Your task to perform on an android device: Go to battery settings Image 0: 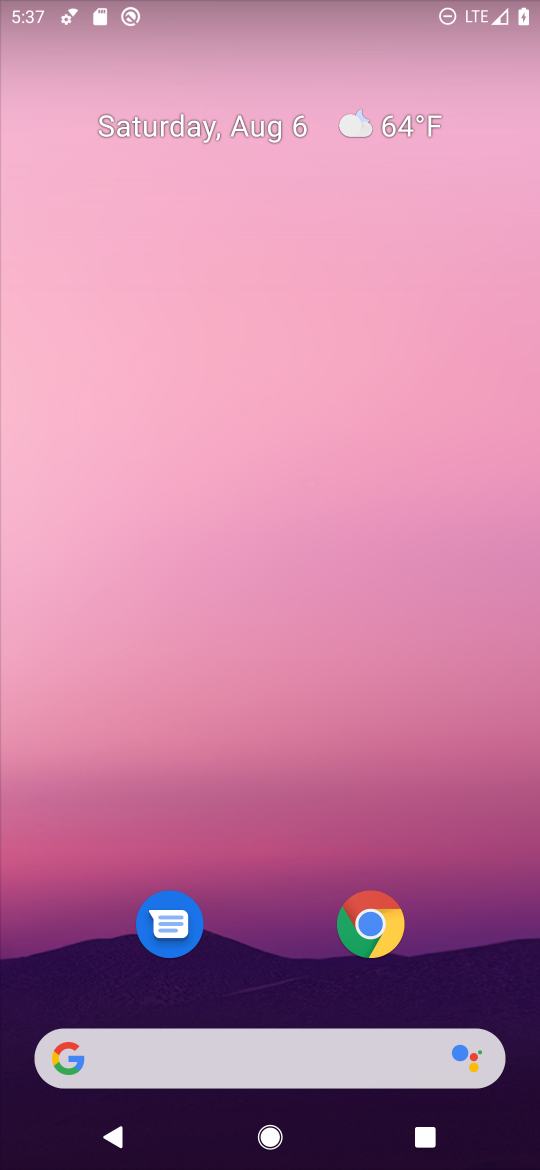
Step 0: drag from (287, 866) to (271, 118)
Your task to perform on an android device: Go to battery settings Image 1: 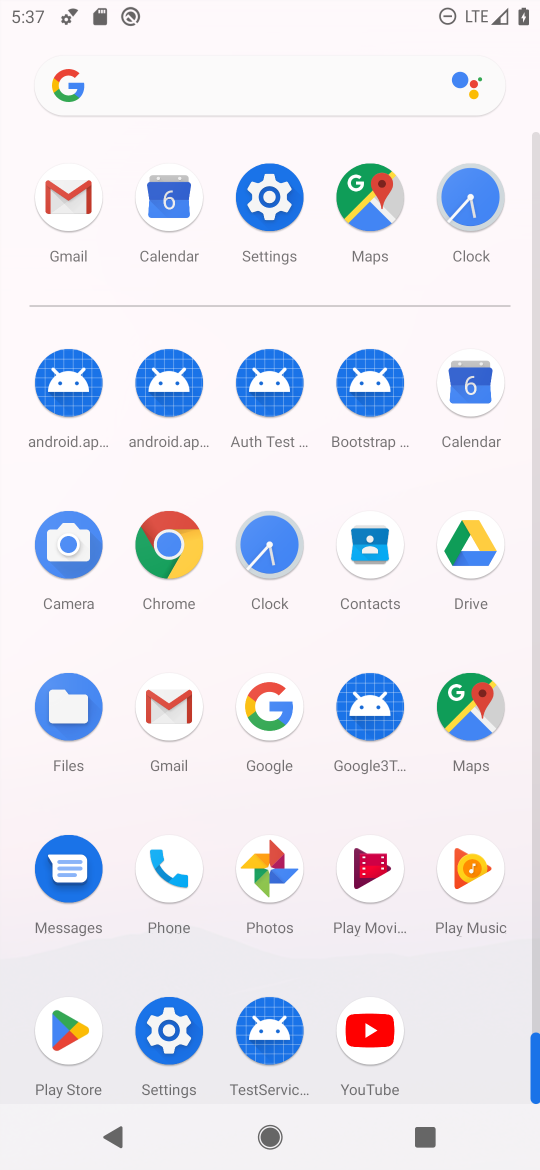
Step 1: click (260, 194)
Your task to perform on an android device: Go to battery settings Image 2: 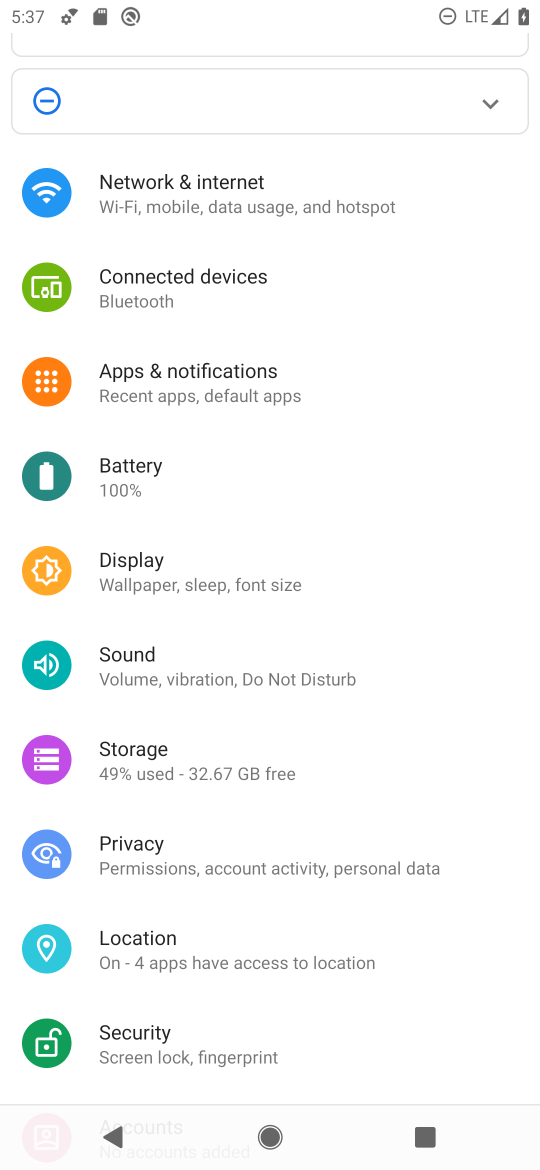
Step 2: click (125, 464)
Your task to perform on an android device: Go to battery settings Image 3: 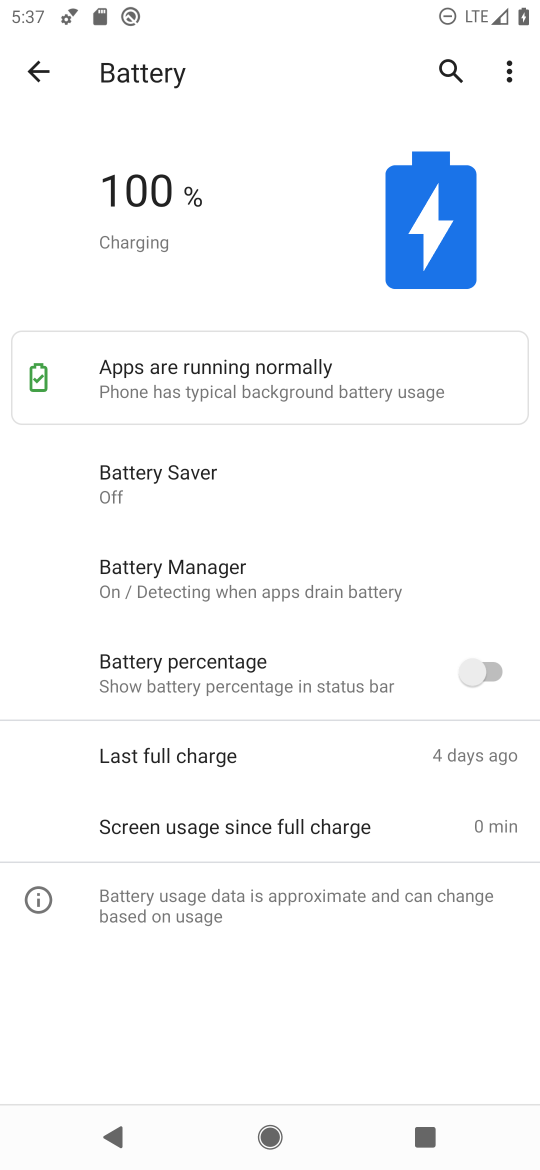
Step 3: task complete